Your task to perform on an android device: What's the weather today? Image 0: 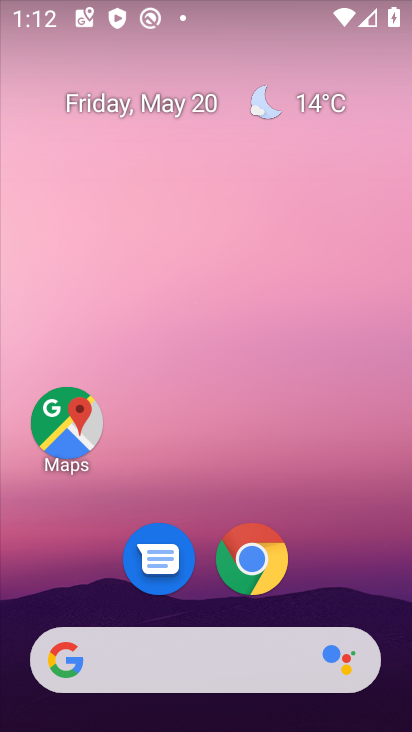
Step 0: drag from (326, 595) to (331, 250)
Your task to perform on an android device: What's the weather today? Image 1: 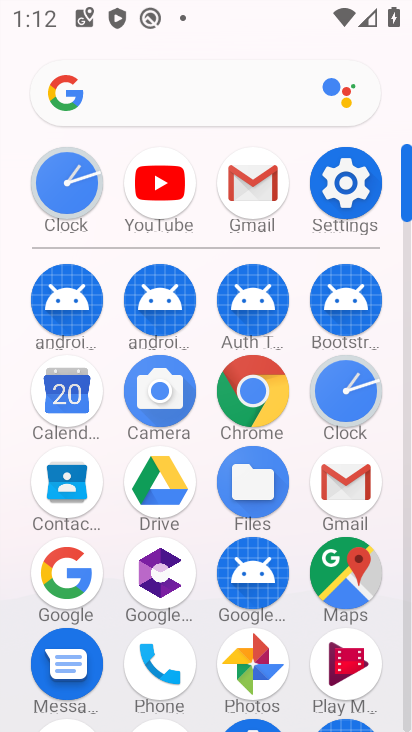
Step 1: click (220, 71)
Your task to perform on an android device: What's the weather today? Image 2: 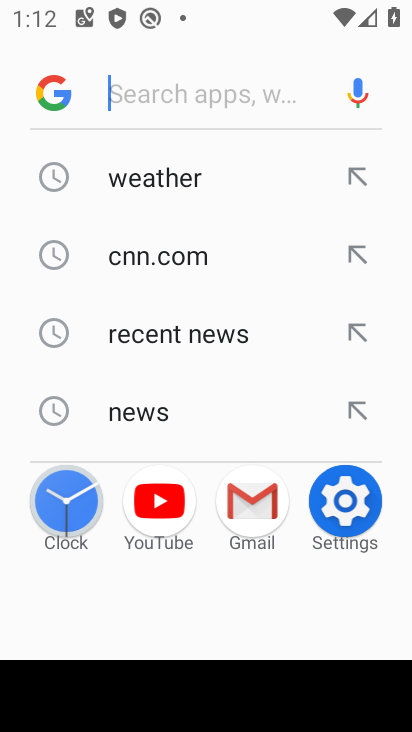
Step 2: click (182, 187)
Your task to perform on an android device: What's the weather today? Image 3: 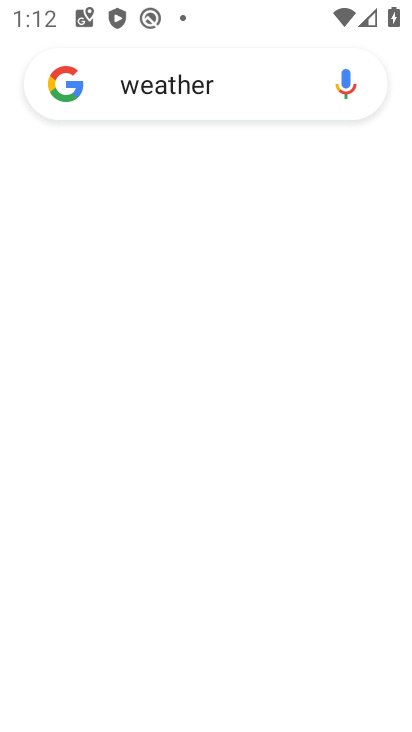
Step 3: task complete